Your task to perform on an android device: open chrome and create a bookmark for the current page Image 0: 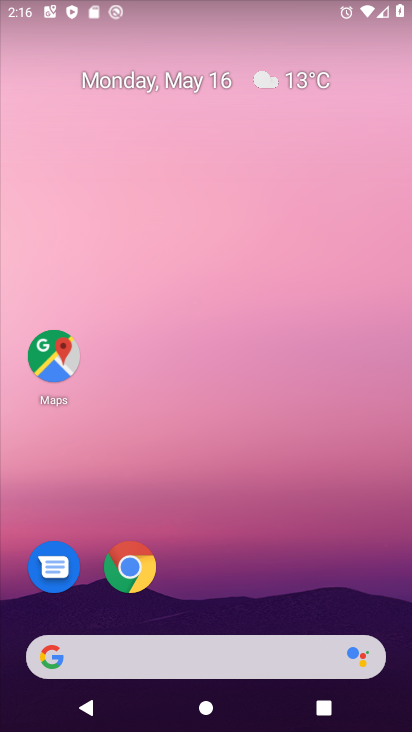
Step 0: press home button
Your task to perform on an android device: open chrome and create a bookmark for the current page Image 1: 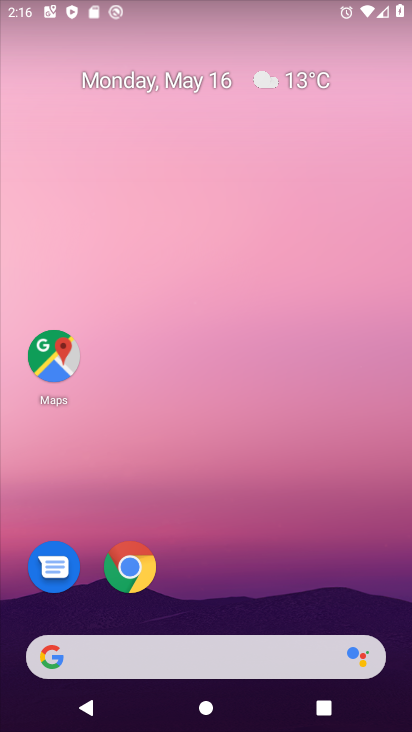
Step 1: press home button
Your task to perform on an android device: open chrome and create a bookmark for the current page Image 2: 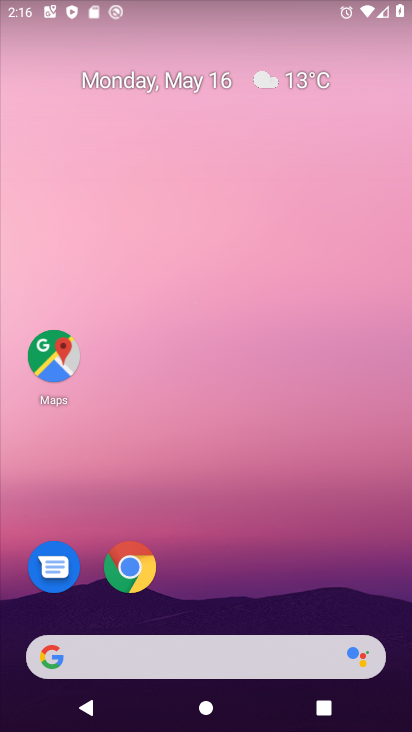
Step 2: click (107, 574)
Your task to perform on an android device: open chrome and create a bookmark for the current page Image 3: 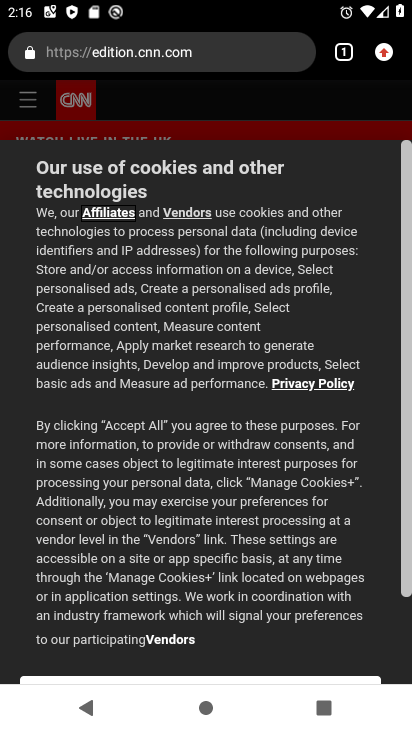
Step 3: task complete